Your task to perform on an android device: Do I have any events tomorrow? Image 0: 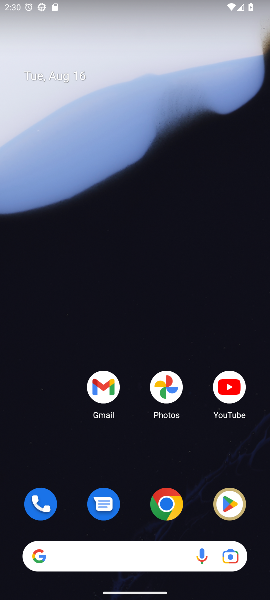
Step 0: drag from (132, 522) to (138, 51)
Your task to perform on an android device: Do I have any events tomorrow? Image 1: 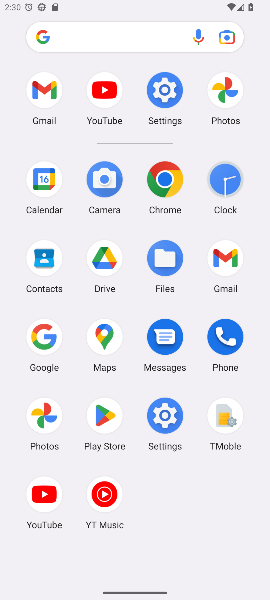
Step 1: click (40, 178)
Your task to perform on an android device: Do I have any events tomorrow? Image 2: 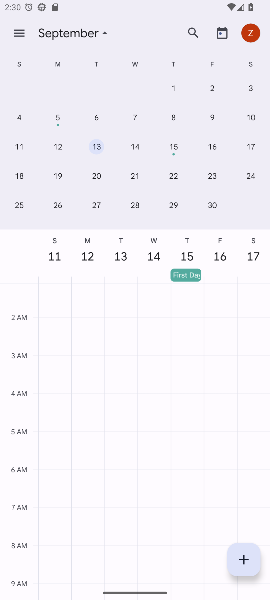
Step 2: click (17, 33)
Your task to perform on an android device: Do I have any events tomorrow? Image 3: 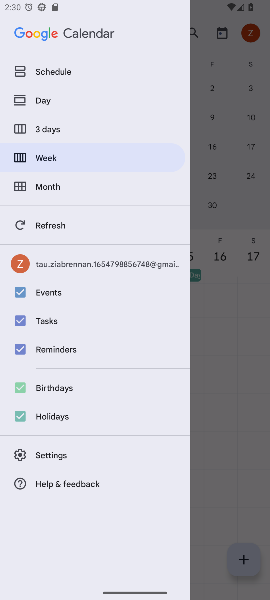
Step 3: click (51, 97)
Your task to perform on an android device: Do I have any events tomorrow? Image 4: 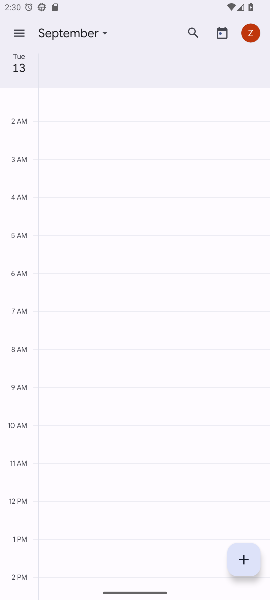
Step 4: click (100, 29)
Your task to perform on an android device: Do I have any events tomorrow? Image 5: 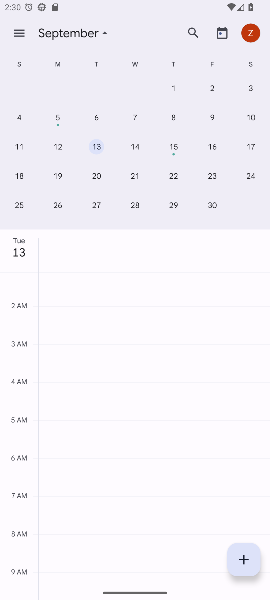
Step 5: drag from (28, 125) to (256, 104)
Your task to perform on an android device: Do I have any events tomorrow? Image 6: 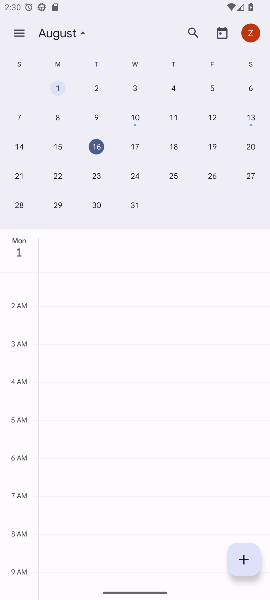
Step 6: click (136, 144)
Your task to perform on an android device: Do I have any events tomorrow? Image 7: 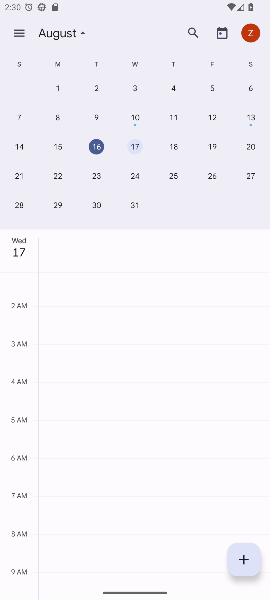
Step 7: task complete